Your task to perform on an android device: Open internet settings Image 0: 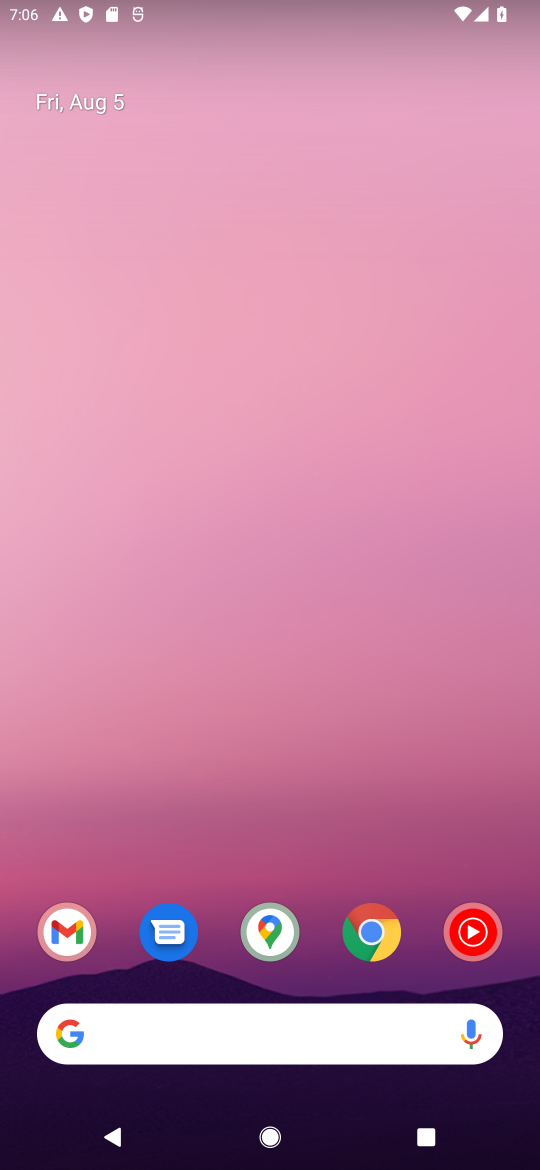
Step 0: drag from (272, 1031) to (356, 186)
Your task to perform on an android device: Open internet settings Image 1: 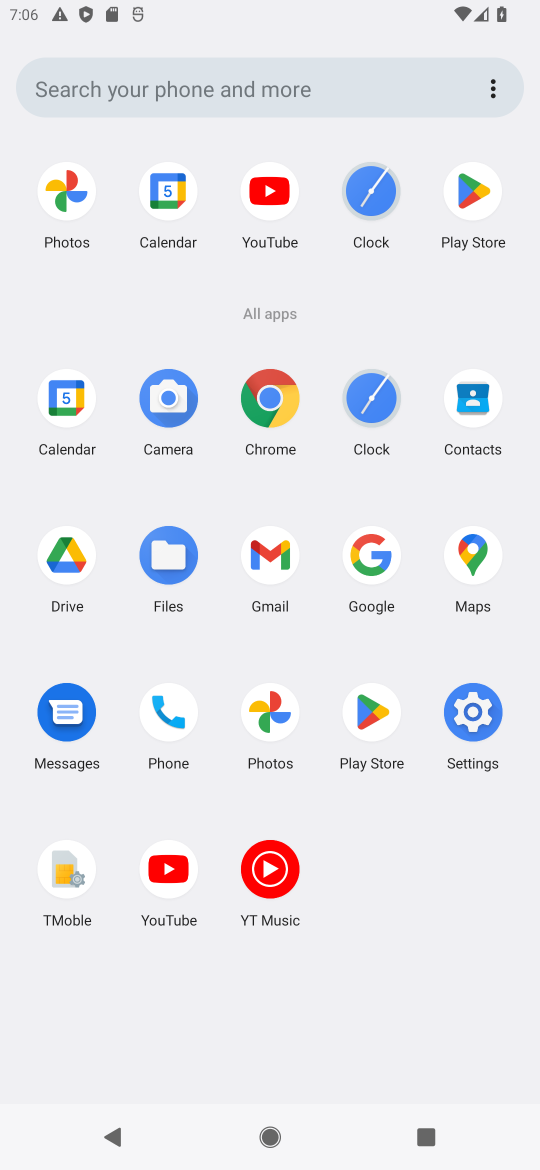
Step 1: click (469, 713)
Your task to perform on an android device: Open internet settings Image 2: 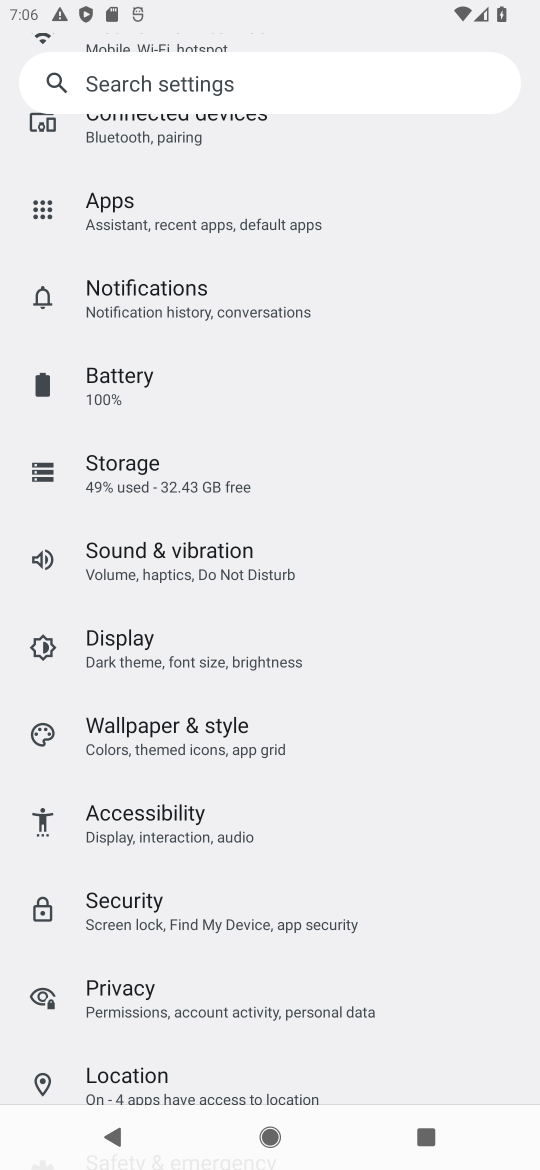
Step 2: drag from (221, 257) to (252, 682)
Your task to perform on an android device: Open internet settings Image 3: 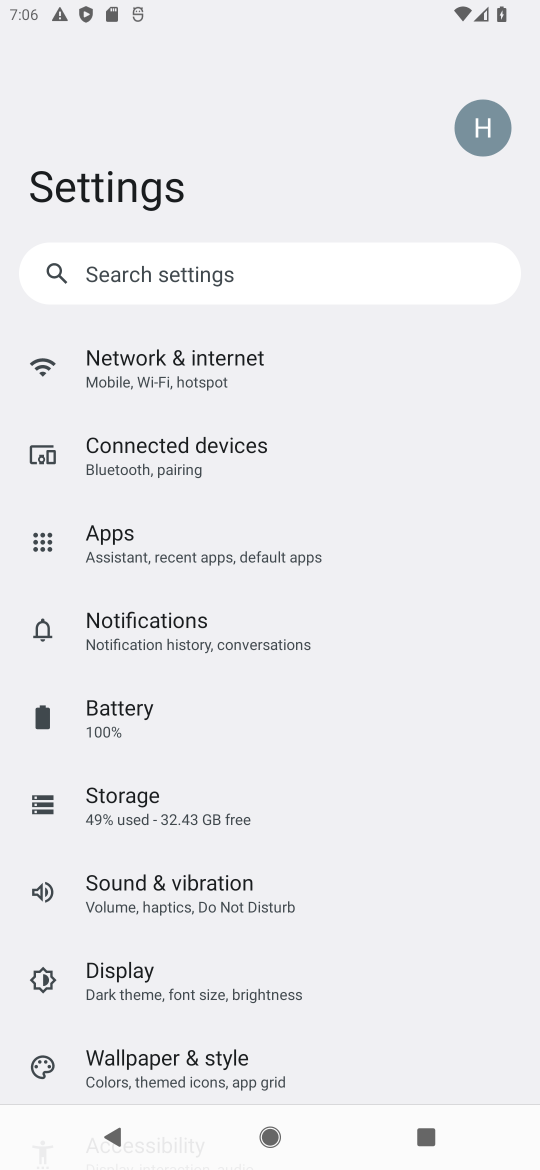
Step 3: drag from (240, 376) to (234, 797)
Your task to perform on an android device: Open internet settings Image 4: 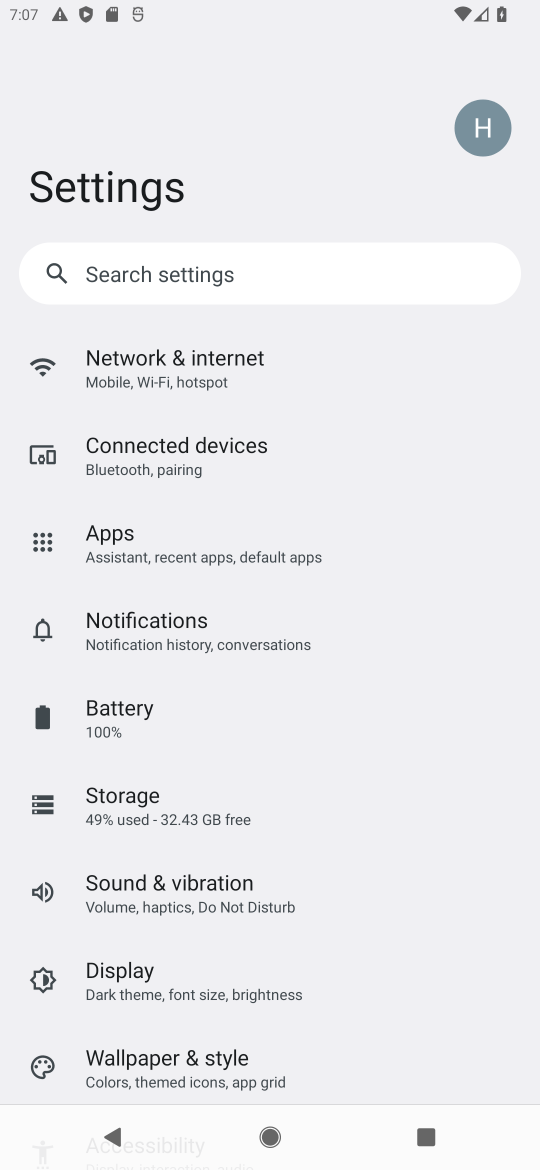
Step 4: click (186, 379)
Your task to perform on an android device: Open internet settings Image 5: 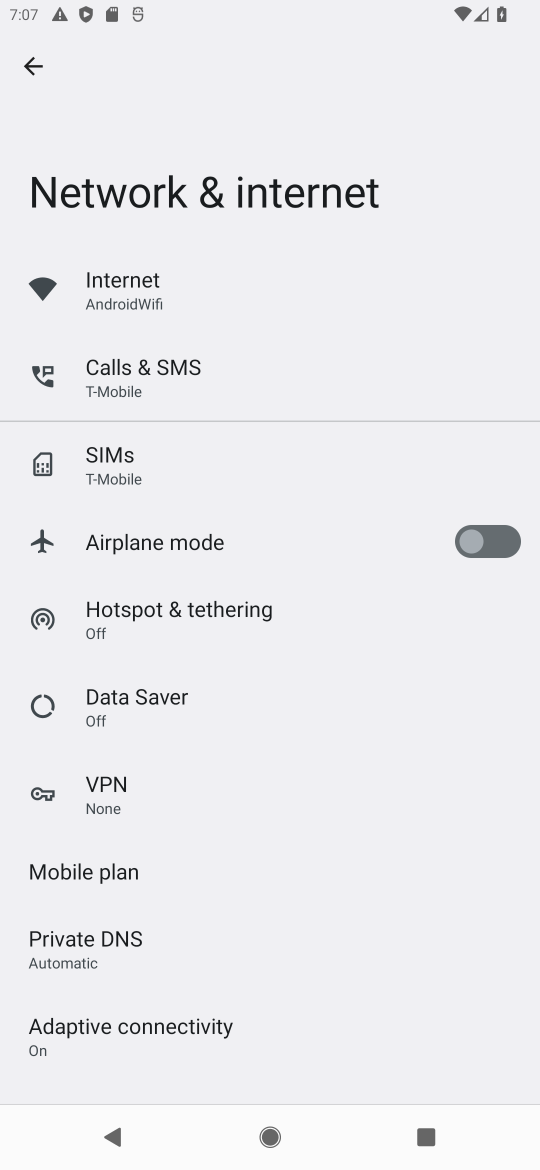
Step 5: click (134, 303)
Your task to perform on an android device: Open internet settings Image 6: 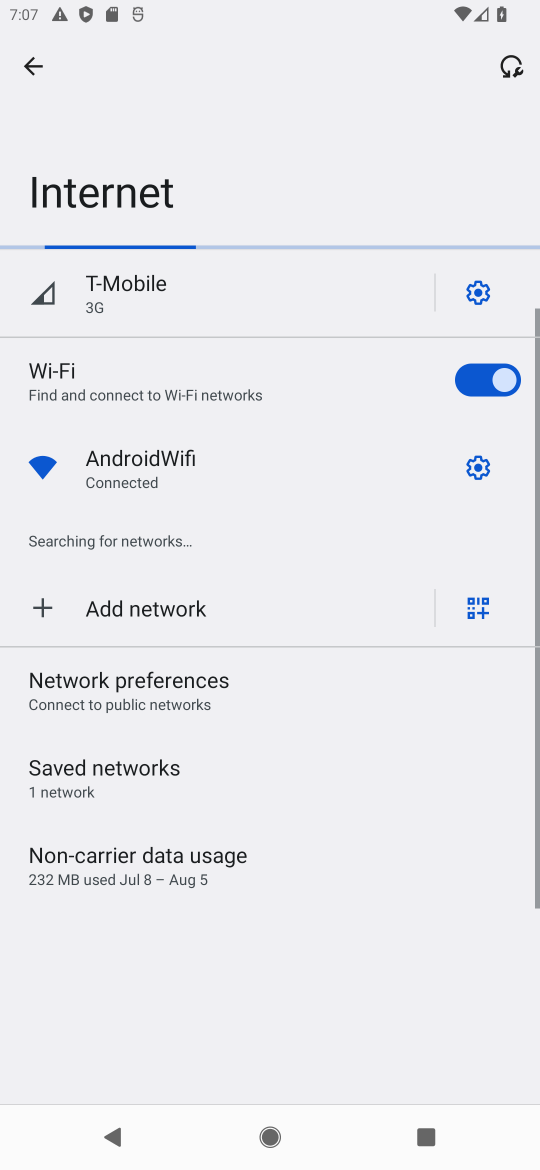
Step 6: task complete